Your task to perform on an android device: Search for a custom made wallet on Etsy Image 0: 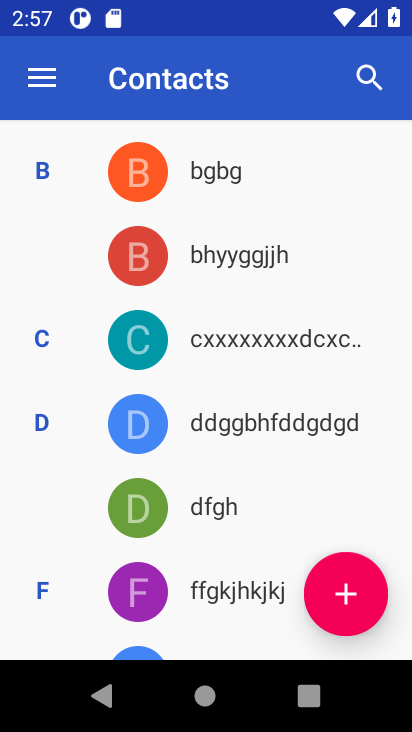
Step 0: press back button
Your task to perform on an android device: Search for a custom made wallet on Etsy Image 1: 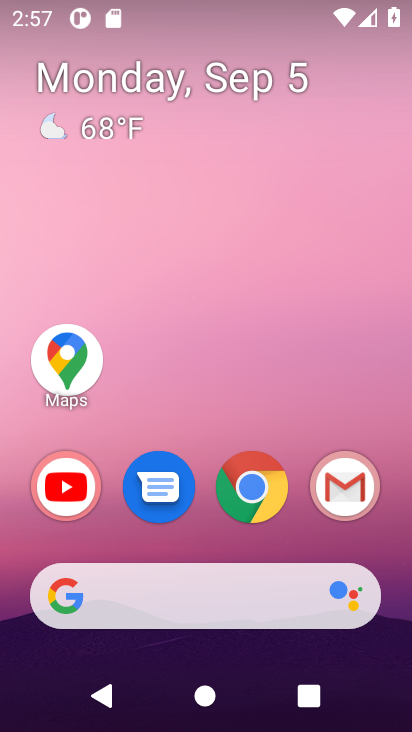
Step 1: click (265, 488)
Your task to perform on an android device: Search for a custom made wallet on Etsy Image 2: 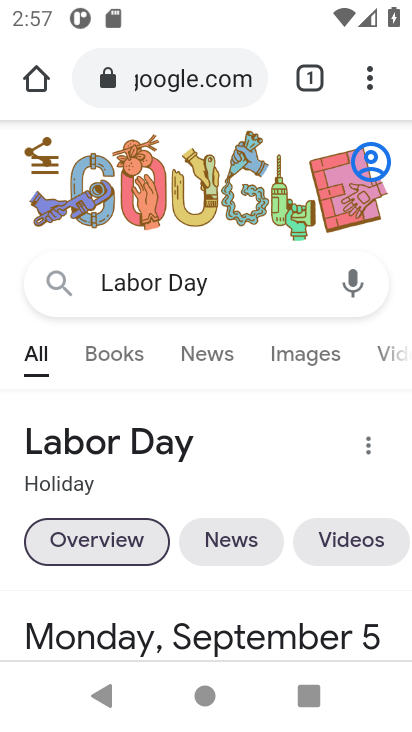
Step 2: click (200, 73)
Your task to perform on an android device: Search for a custom made wallet on Etsy Image 3: 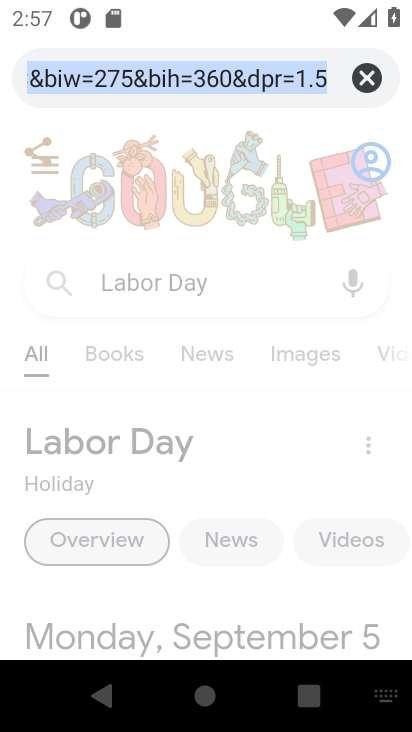
Step 3: click (371, 78)
Your task to perform on an android device: Search for a custom made wallet on Etsy Image 4: 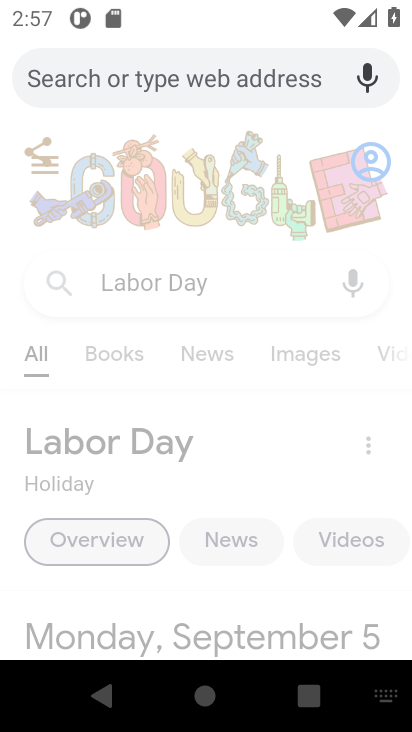
Step 4: type "custom made wallet on Etsy"
Your task to perform on an android device: Search for a custom made wallet on Etsy Image 5: 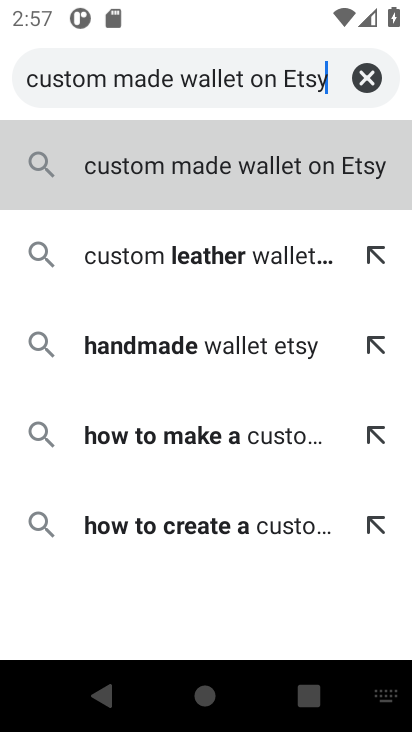
Step 5: click (193, 155)
Your task to perform on an android device: Search for a custom made wallet on Etsy Image 6: 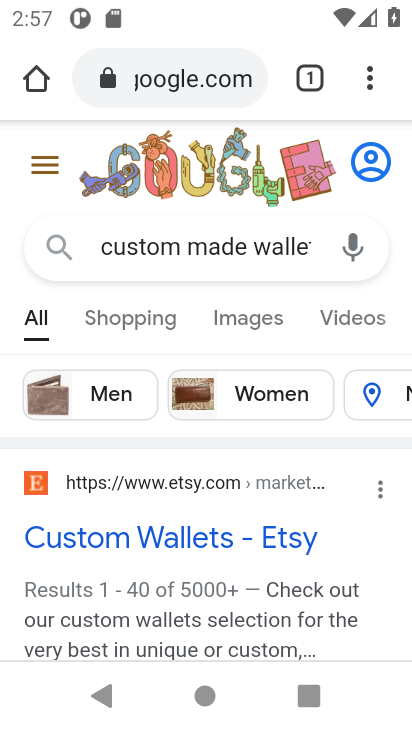
Step 6: task complete